Your task to perform on an android device: What's the weather? Image 0: 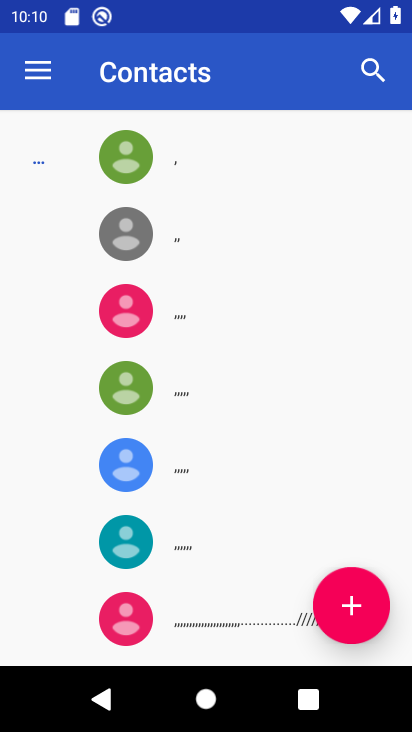
Step 0: drag from (210, 577) to (219, 232)
Your task to perform on an android device: What's the weather? Image 1: 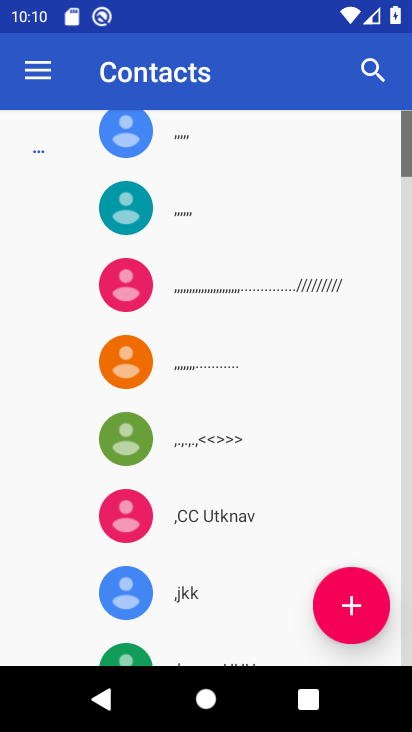
Step 1: press home button
Your task to perform on an android device: What's the weather? Image 2: 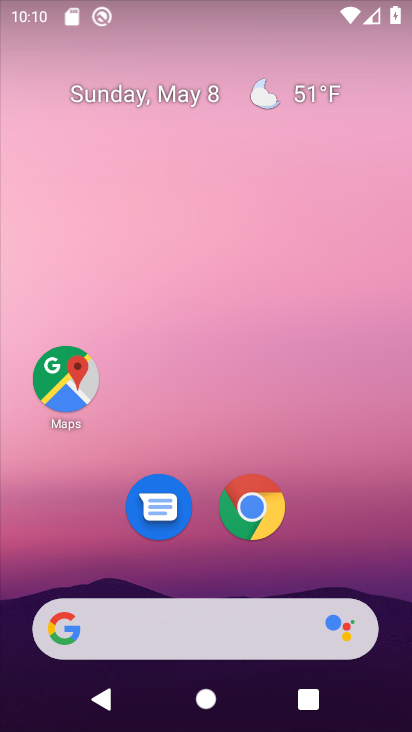
Step 2: click (295, 89)
Your task to perform on an android device: What's the weather? Image 3: 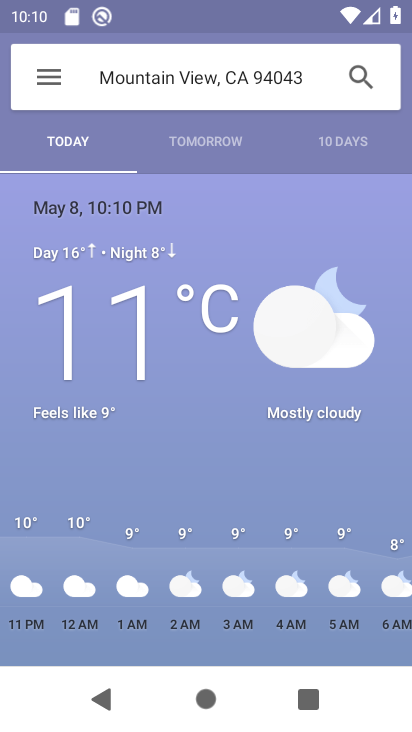
Step 3: task complete